Your task to perform on an android device: Go to Google maps Image 0: 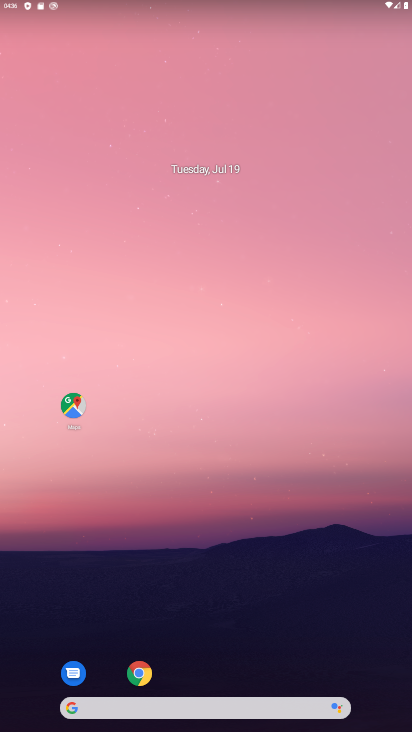
Step 0: drag from (245, 666) to (245, 84)
Your task to perform on an android device: Go to Google maps Image 1: 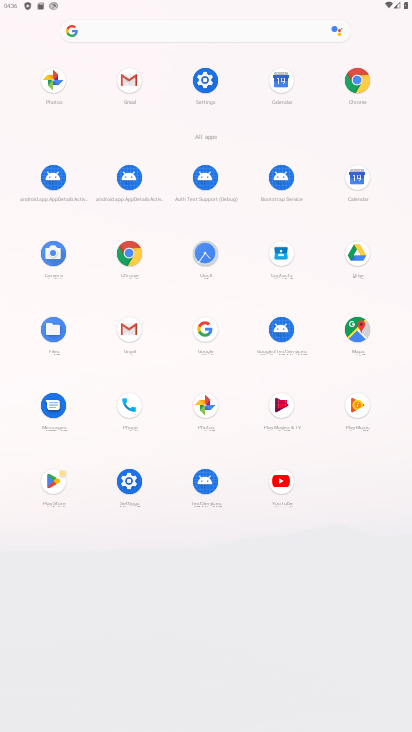
Step 1: click (352, 332)
Your task to perform on an android device: Go to Google maps Image 2: 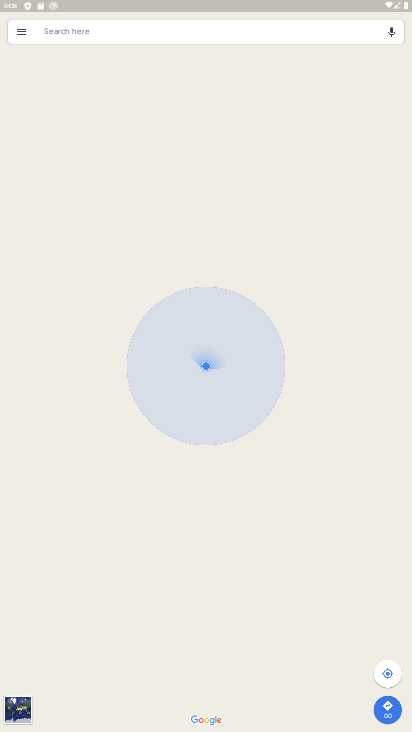
Step 2: task complete